Your task to perform on an android device: Find coffee shops on Maps Image 0: 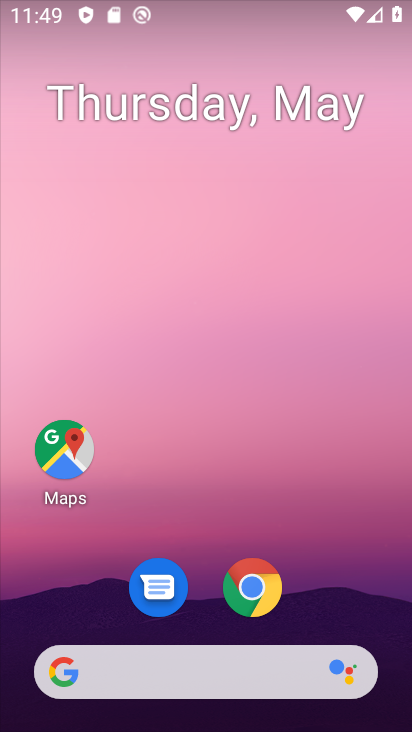
Step 0: click (65, 451)
Your task to perform on an android device: Find coffee shops on Maps Image 1: 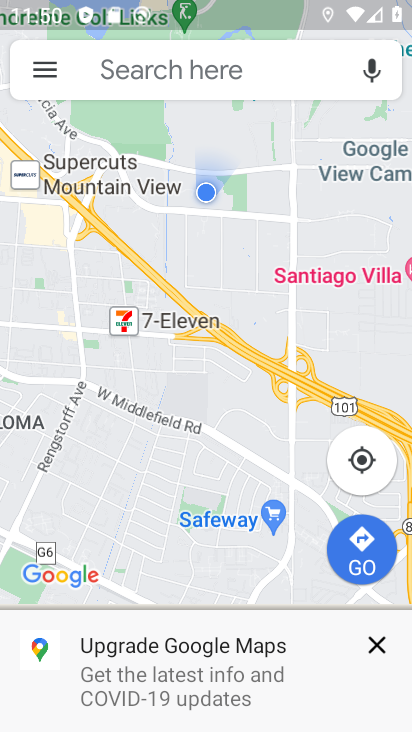
Step 1: click (149, 71)
Your task to perform on an android device: Find coffee shops on Maps Image 2: 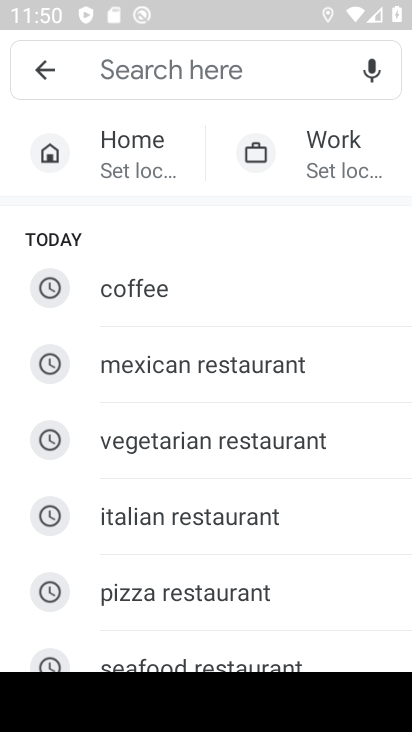
Step 2: type "coffee shops"
Your task to perform on an android device: Find coffee shops on Maps Image 3: 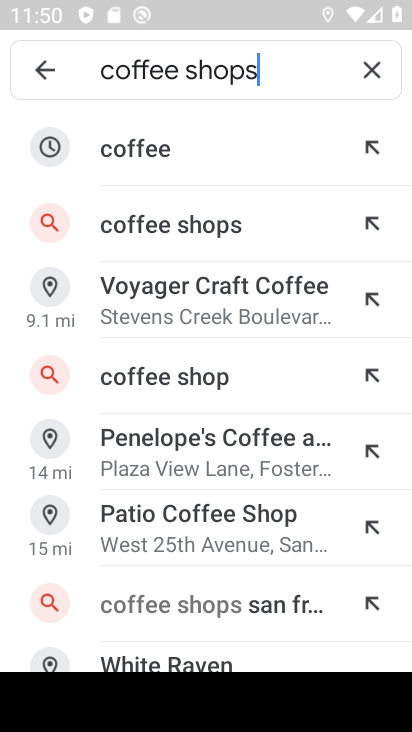
Step 3: click (170, 223)
Your task to perform on an android device: Find coffee shops on Maps Image 4: 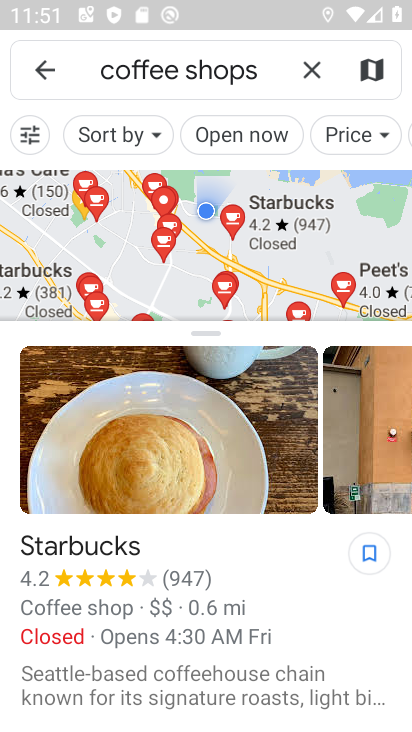
Step 4: task complete